Your task to perform on an android device: Go to Reddit.com Image 0: 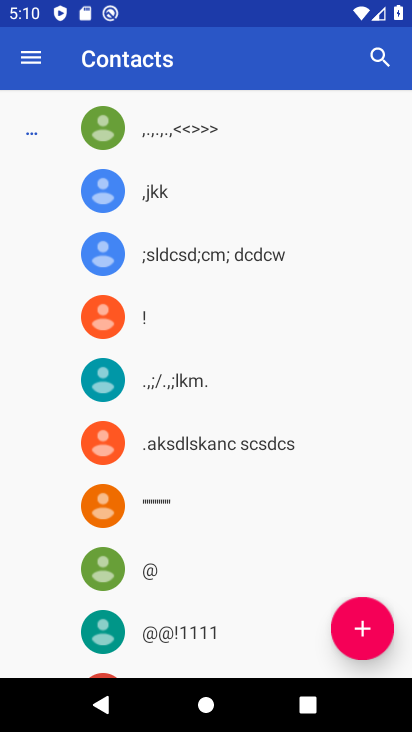
Step 0: press home button
Your task to perform on an android device: Go to Reddit.com Image 1: 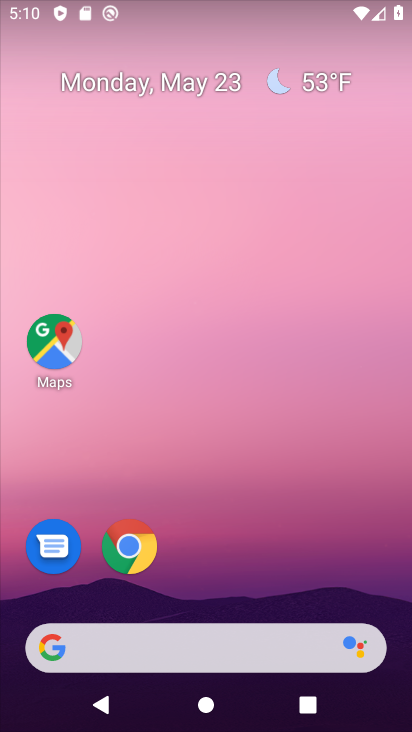
Step 1: click (137, 550)
Your task to perform on an android device: Go to Reddit.com Image 2: 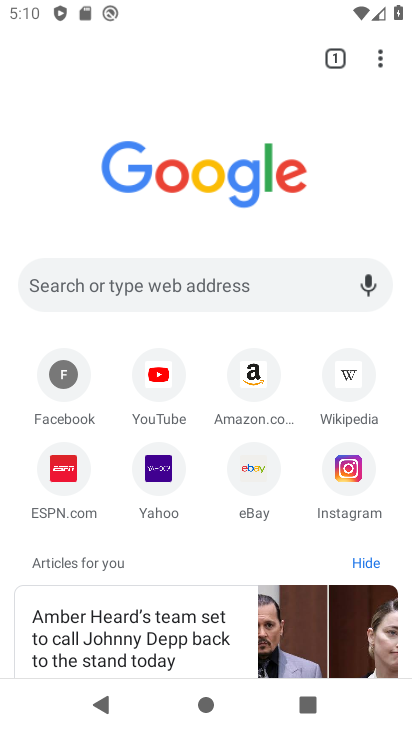
Step 2: click (246, 287)
Your task to perform on an android device: Go to Reddit.com Image 3: 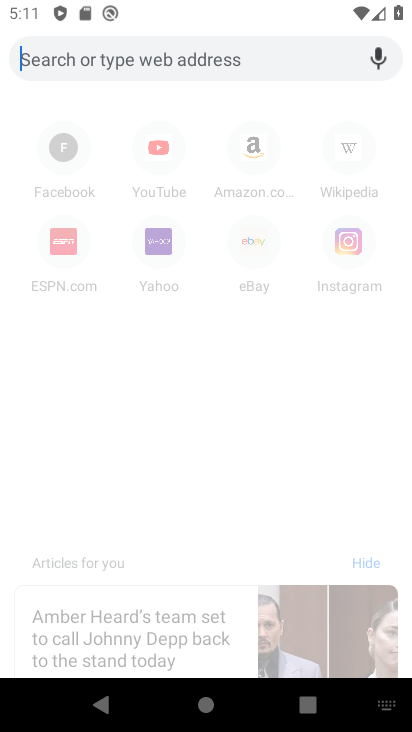
Step 3: type "Reddit.com"
Your task to perform on an android device: Go to Reddit.com Image 4: 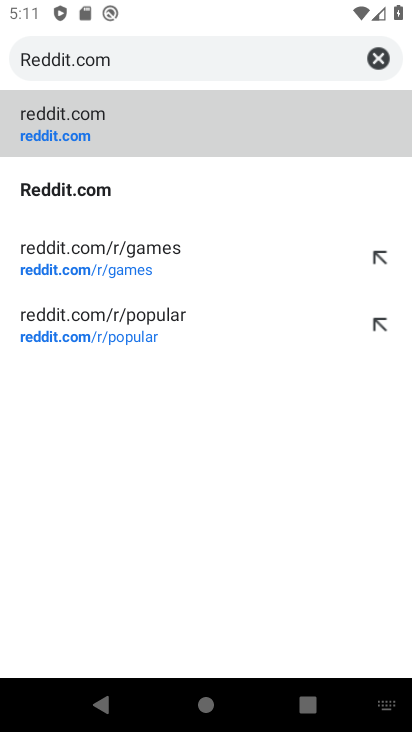
Step 4: click (86, 133)
Your task to perform on an android device: Go to Reddit.com Image 5: 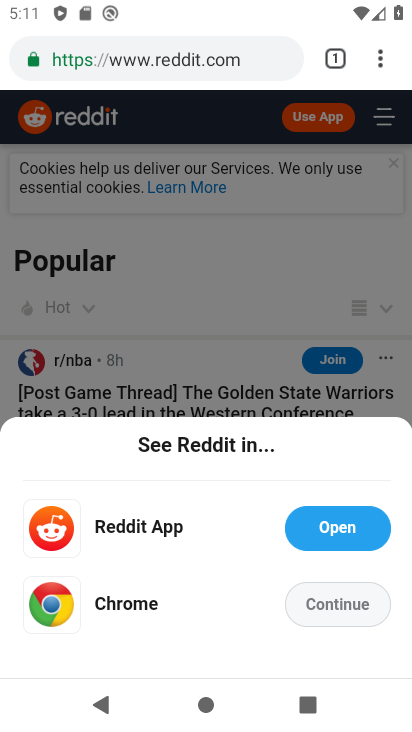
Step 5: click (332, 606)
Your task to perform on an android device: Go to Reddit.com Image 6: 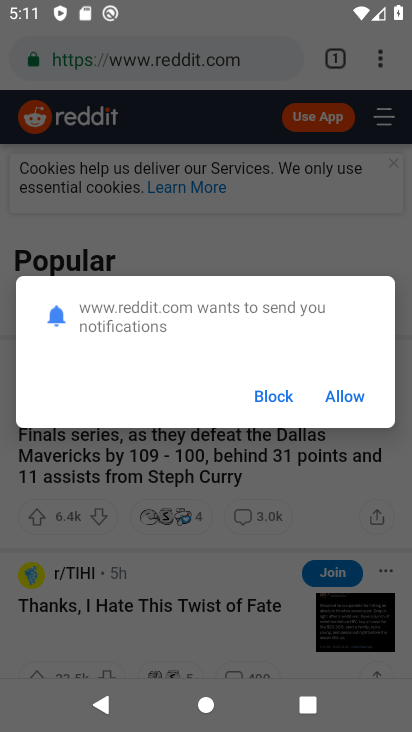
Step 6: task complete